Your task to perform on an android device: change the clock style Image 0: 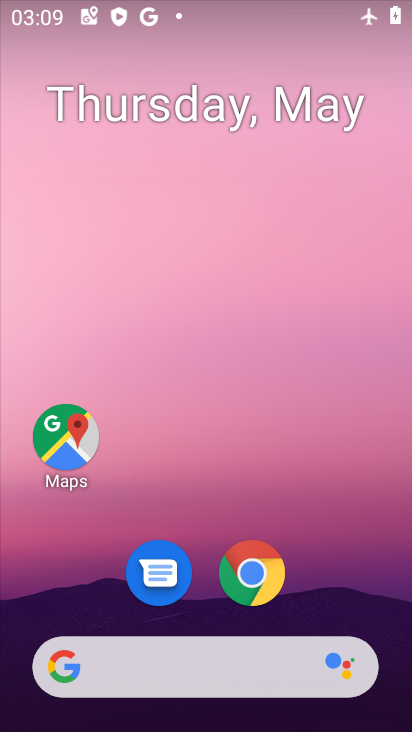
Step 0: drag from (300, 498) to (315, 181)
Your task to perform on an android device: change the clock style Image 1: 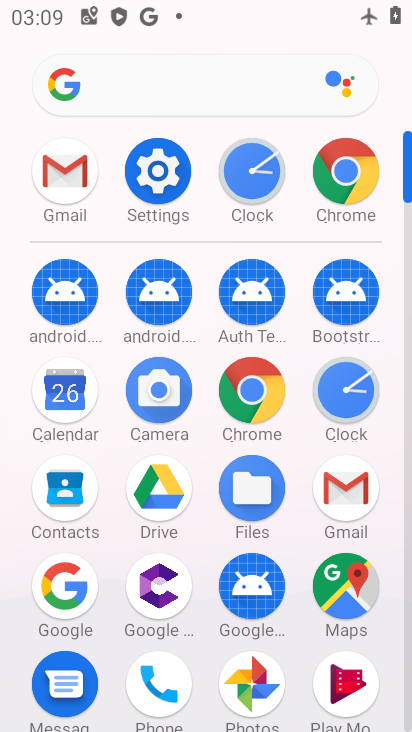
Step 1: click (347, 379)
Your task to perform on an android device: change the clock style Image 2: 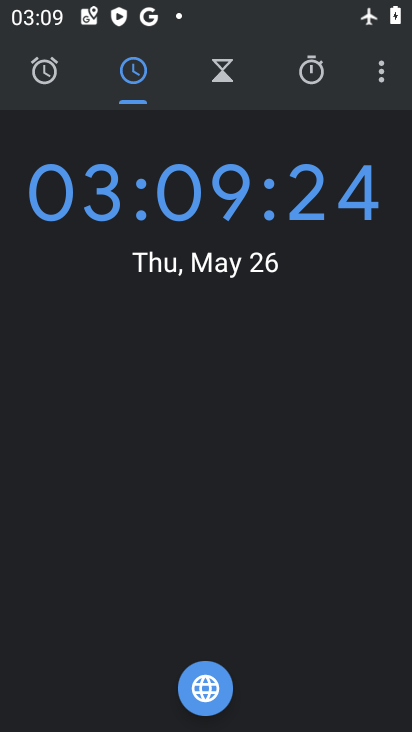
Step 2: click (385, 67)
Your task to perform on an android device: change the clock style Image 3: 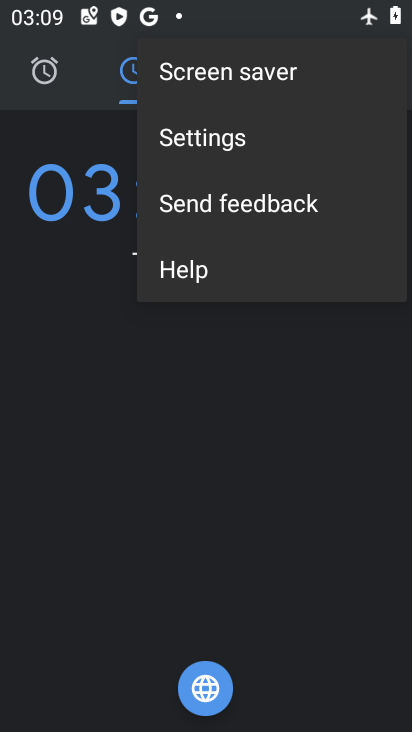
Step 3: click (250, 145)
Your task to perform on an android device: change the clock style Image 4: 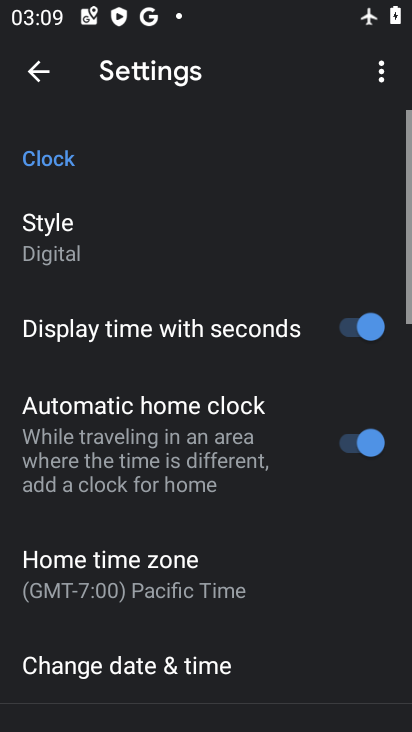
Step 4: click (78, 242)
Your task to perform on an android device: change the clock style Image 5: 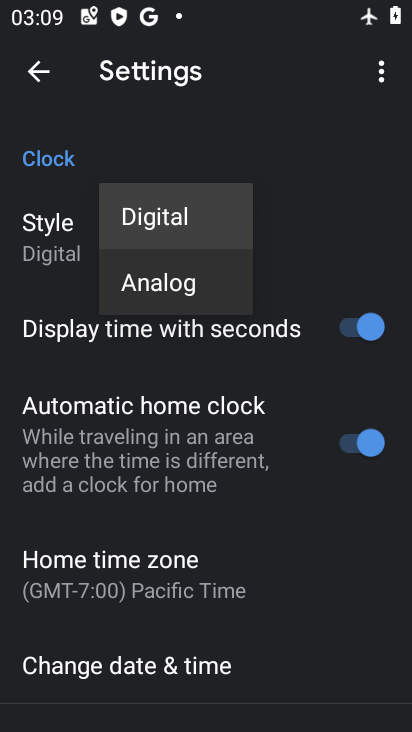
Step 5: click (143, 287)
Your task to perform on an android device: change the clock style Image 6: 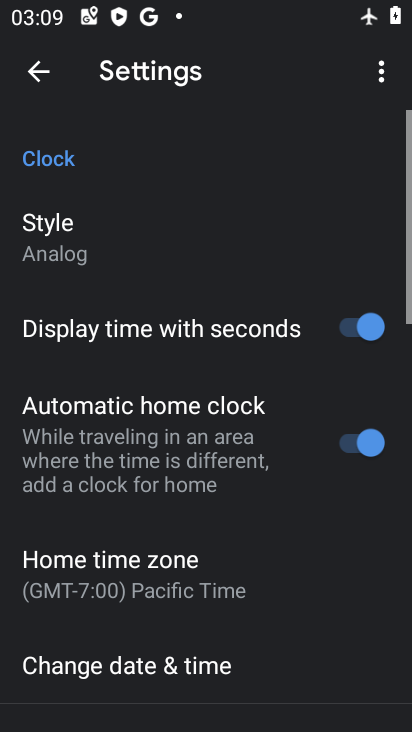
Step 6: task complete